Your task to perform on an android device: read, delete, or share a saved page in the chrome app Image 0: 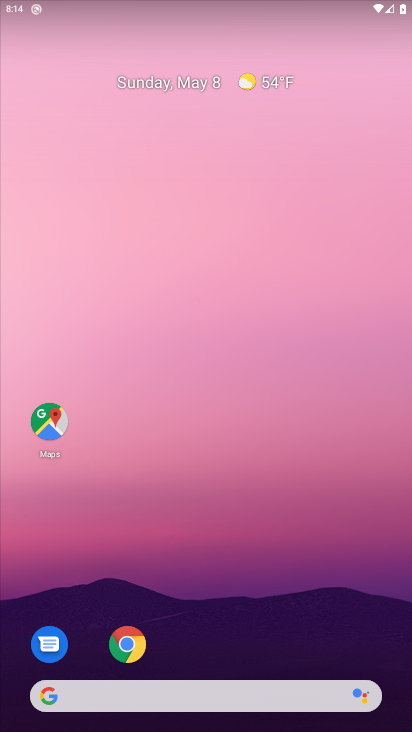
Step 0: click (124, 648)
Your task to perform on an android device: read, delete, or share a saved page in the chrome app Image 1: 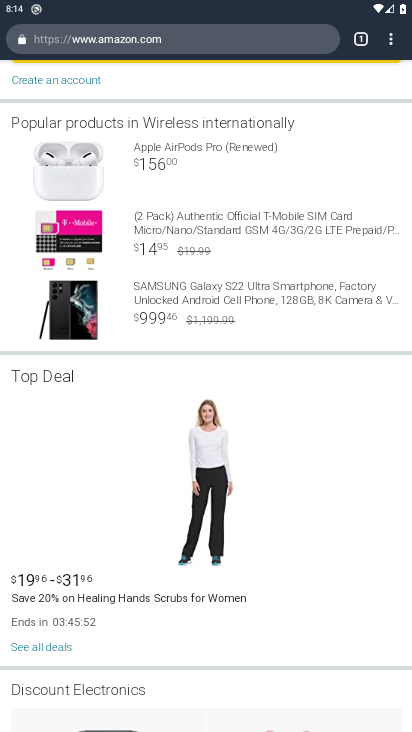
Step 1: click (357, 40)
Your task to perform on an android device: read, delete, or share a saved page in the chrome app Image 2: 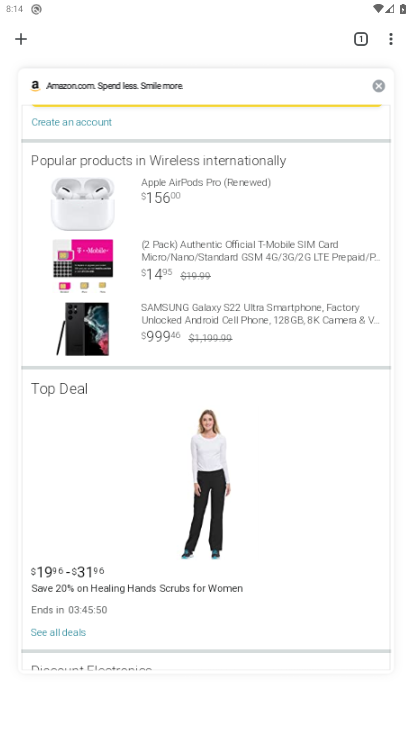
Step 2: click (377, 82)
Your task to perform on an android device: read, delete, or share a saved page in the chrome app Image 3: 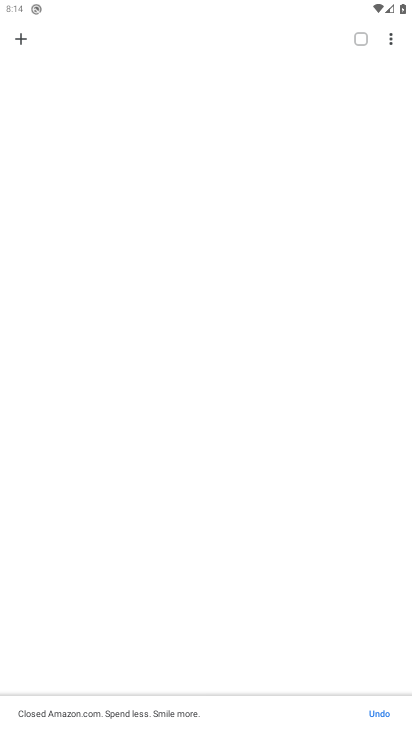
Step 3: click (22, 40)
Your task to perform on an android device: read, delete, or share a saved page in the chrome app Image 4: 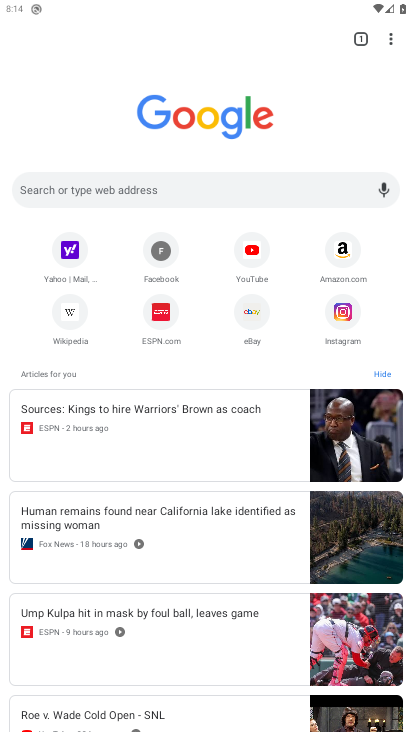
Step 4: click (396, 41)
Your task to perform on an android device: read, delete, or share a saved page in the chrome app Image 5: 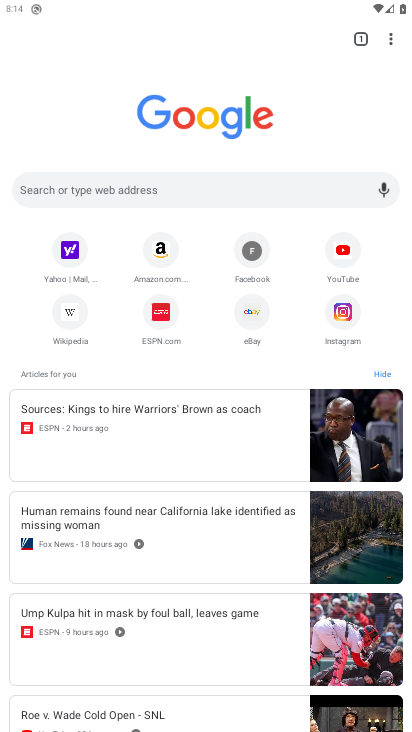
Step 5: click (387, 37)
Your task to perform on an android device: read, delete, or share a saved page in the chrome app Image 6: 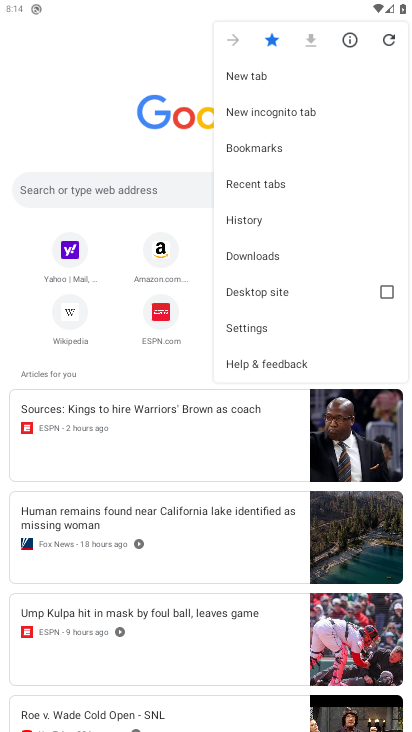
Step 6: click (266, 258)
Your task to perform on an android device: read, delete, or share a saved page in the chrome app Image 7: 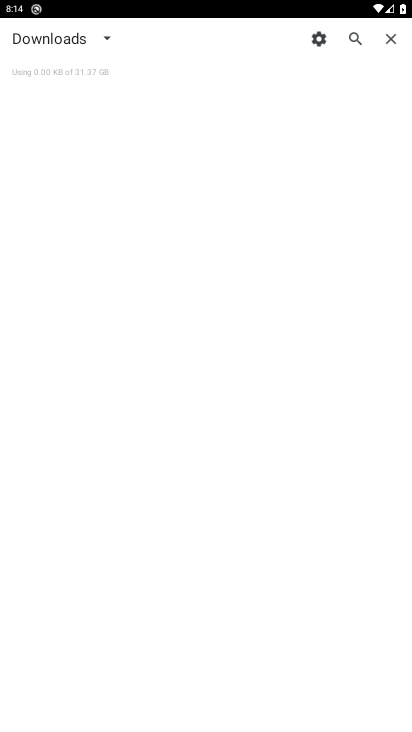
Step 7: click (104, 37)
Your task to perform on an android device: read, delete, or share a saved page in the chrome app Image 8: 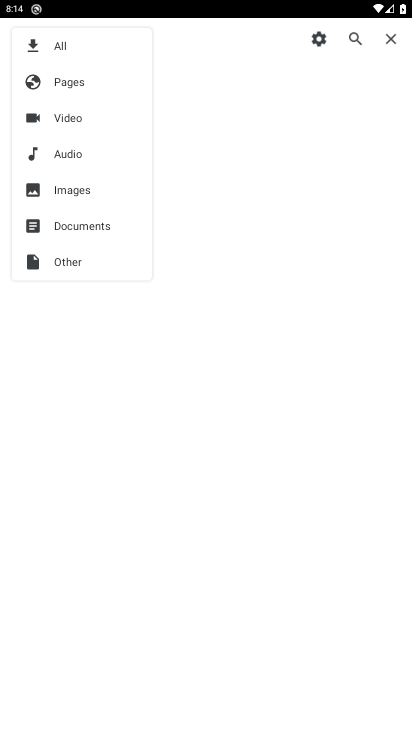
Step 8: click (73, 82)
Your task to perform on an android device: read, delete, or share a saved page in the chrome app Image 9: 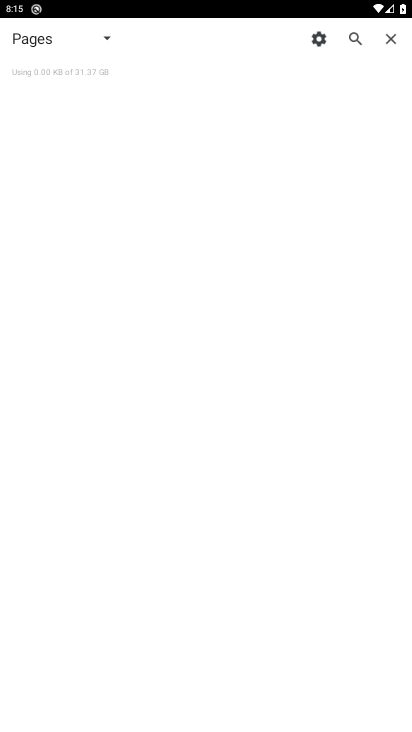
Step 9: task complete